Your task to perform on an android device: Clear all items from cart on amazon.com. Image 0: 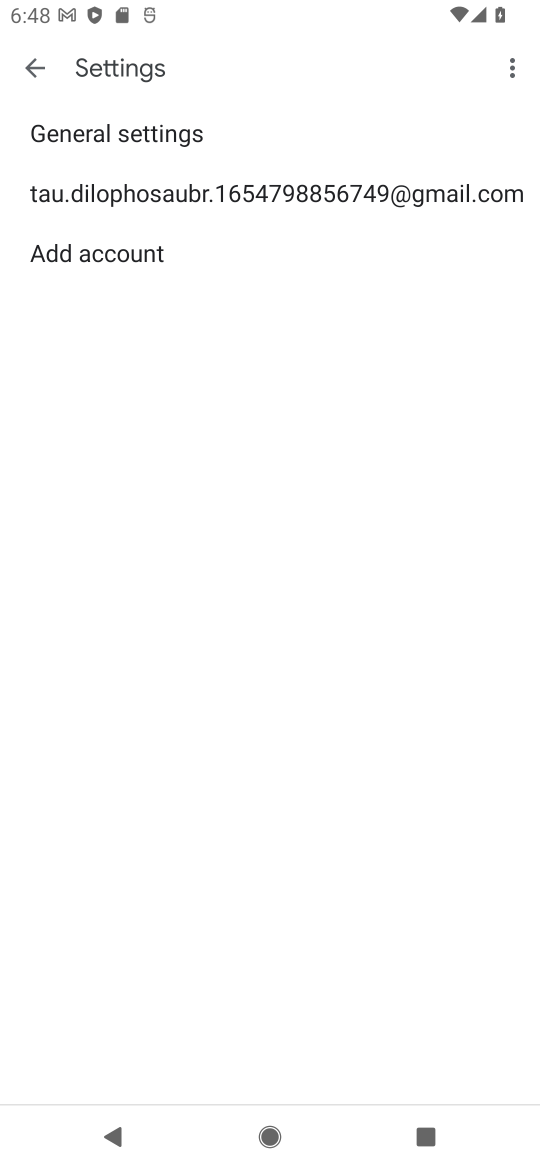
Step 0: press back button
Your task to perform on an android device: Clear all items from cart on amazon.com. Image 1: 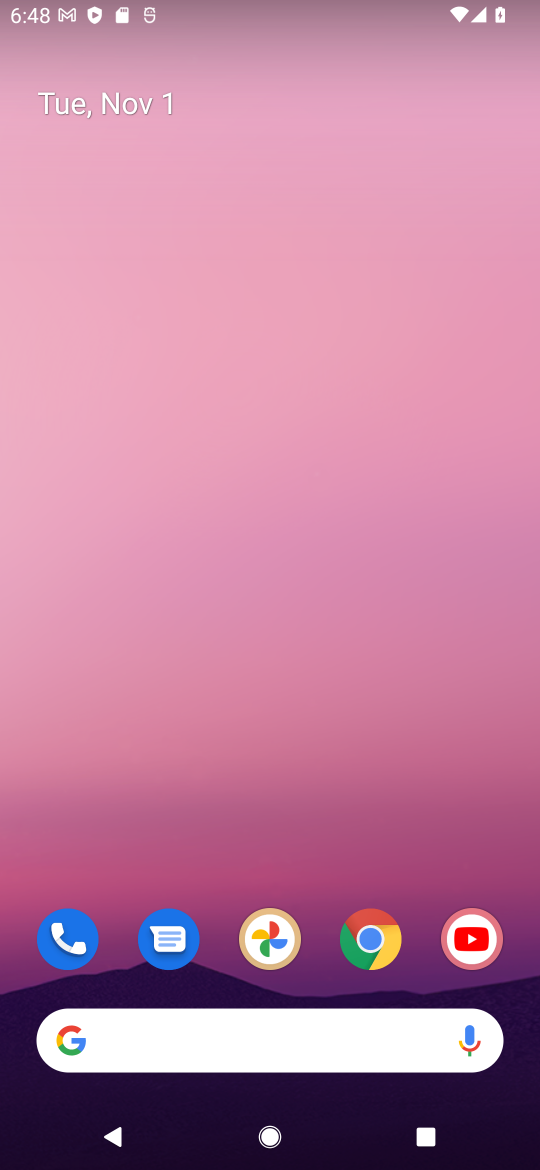
Step 1: drag from (265, 827) to (258, 240)
Your task to perform on an android device: Clear all items from cart on amazon.com. Image 2: 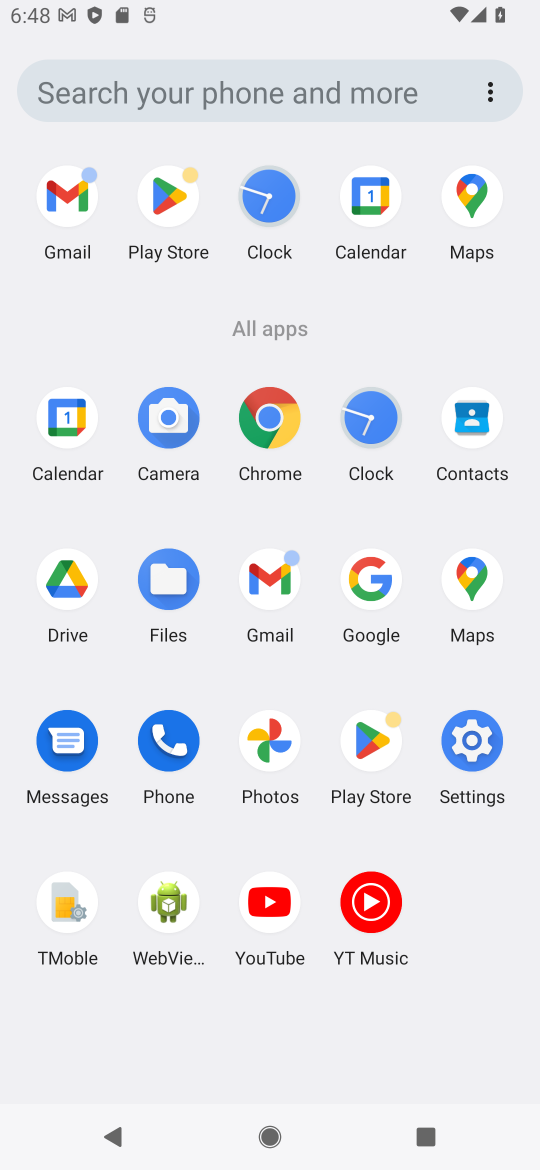
Step 2: click (261, 438)
Your task to perform on an android device: Clear all items from cart on amazon.com. Image 3: 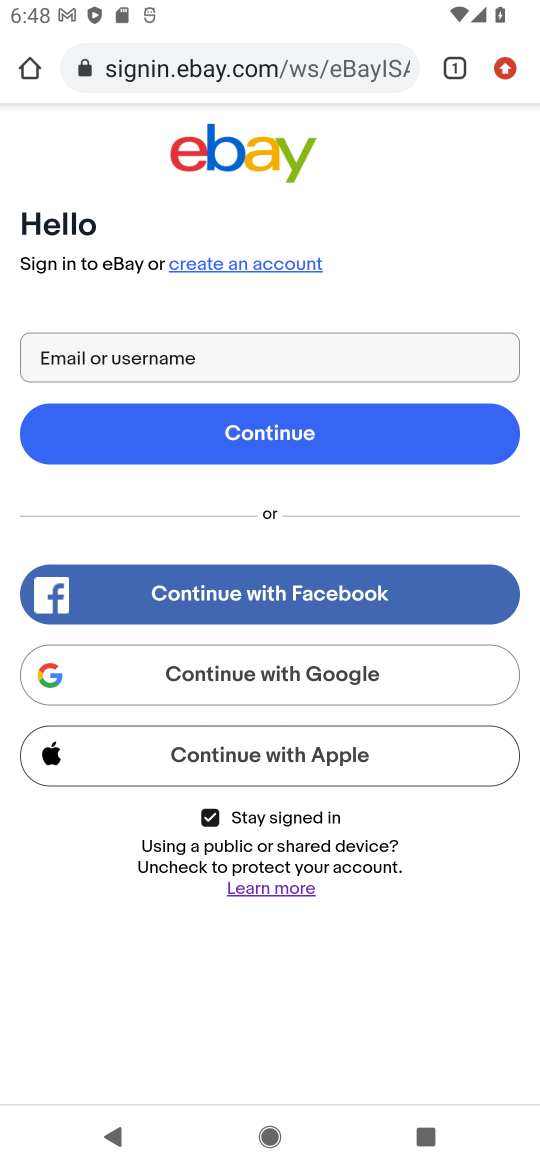
Step 3: click (234, 63)
Your task to perform on an android device: Clear all items from cart on amazon.com. Image 4: 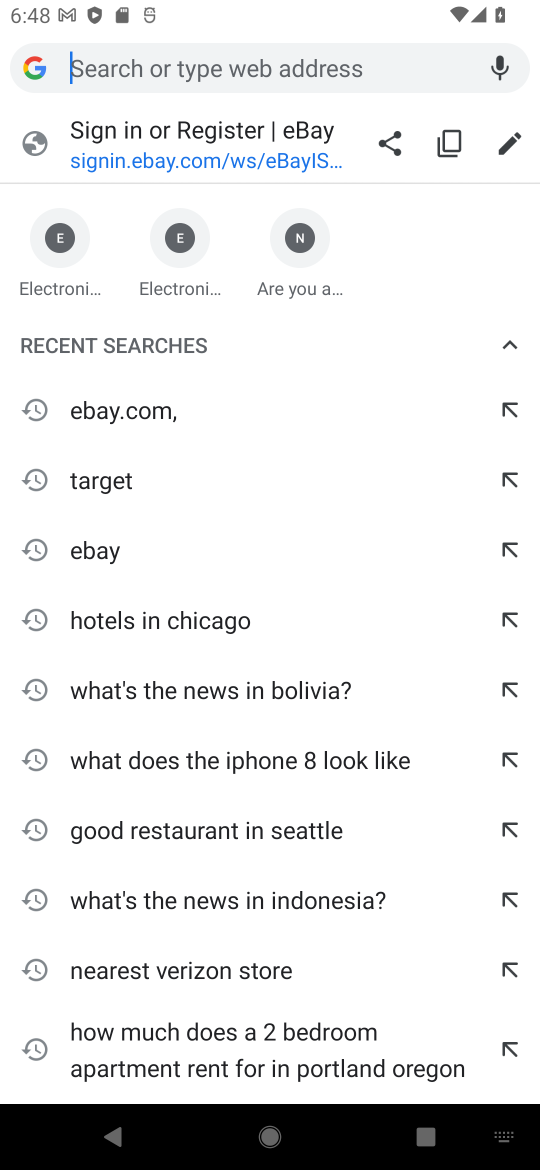
Step 4: type "amazon.com."
Your task to perform on an android device: Clear all items from cart on amazon.com. Image 5: 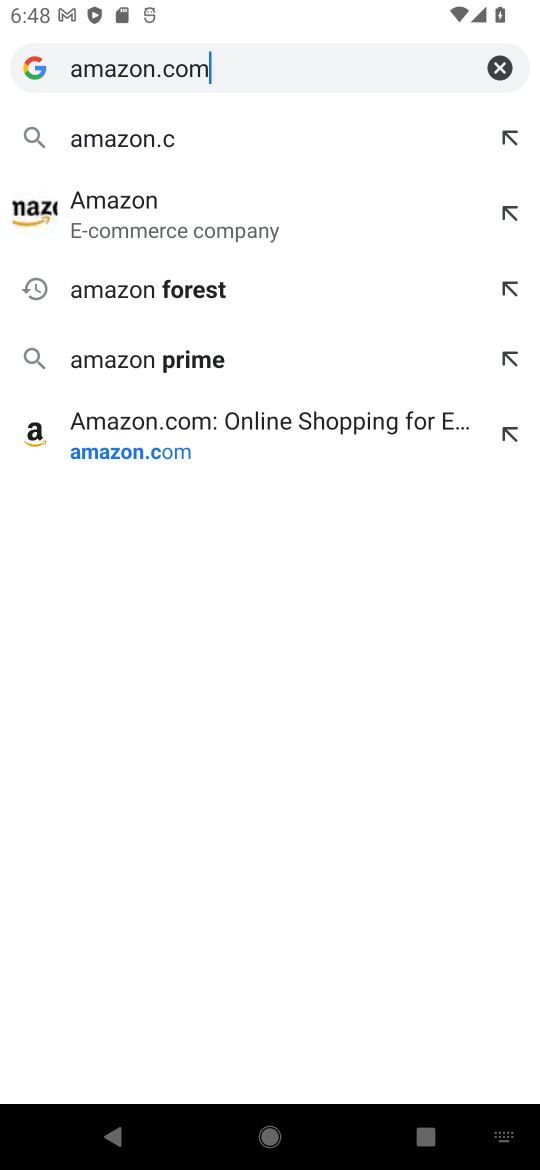
Step 5: press enter
Your task to perform on an android device: Clear all items from cart on amazon.com. Image 6: 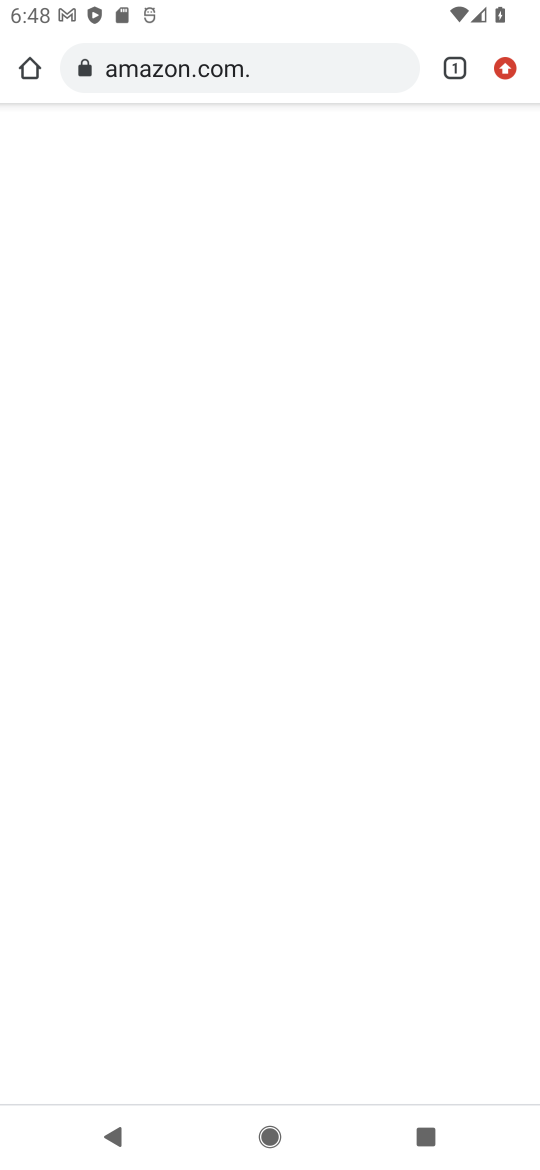
Step 6: press enter
Your task to perform on an android device: Clear all items from cart on amazon.com. Image 7: 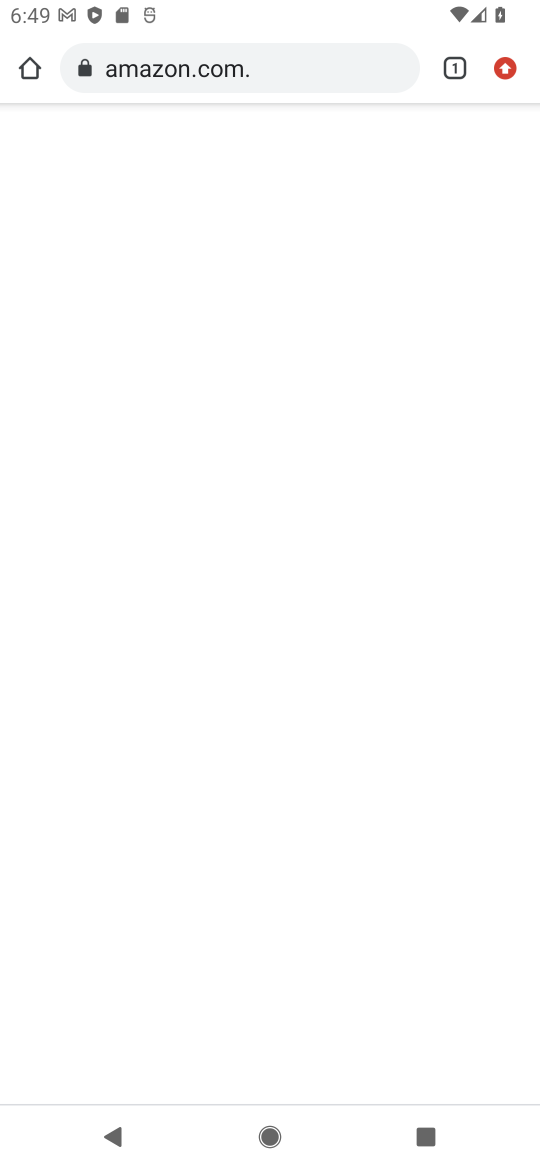
Step 7: press enter
Your task to perform on an android device: Clear all items from cart on amazon.com. Image 8: 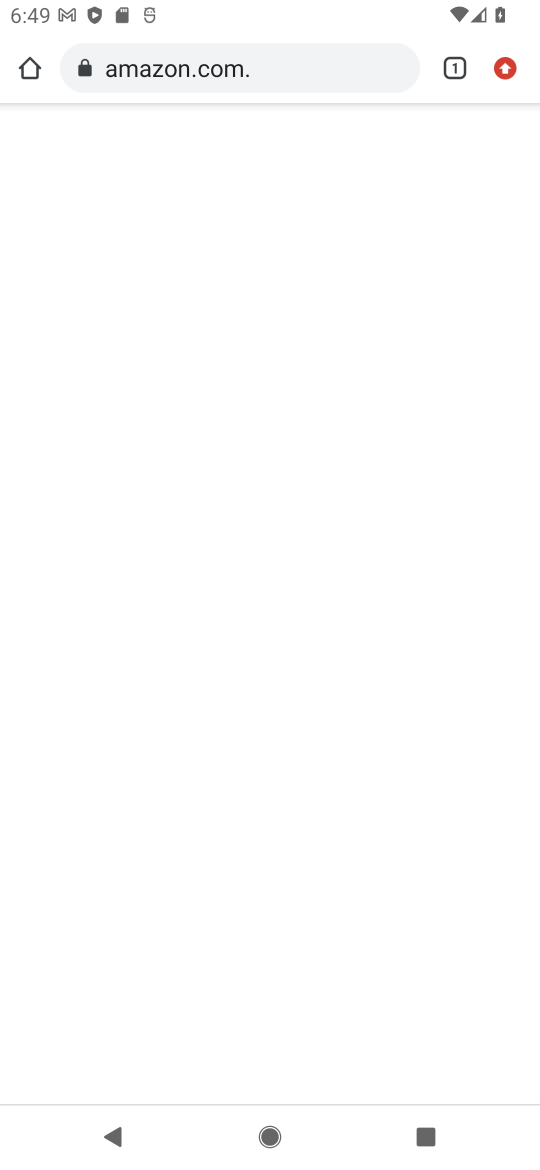
Step 8: click (334, 91)
Your task to perform on an android device: Clear all items from cart on amazon.com. Image 9: 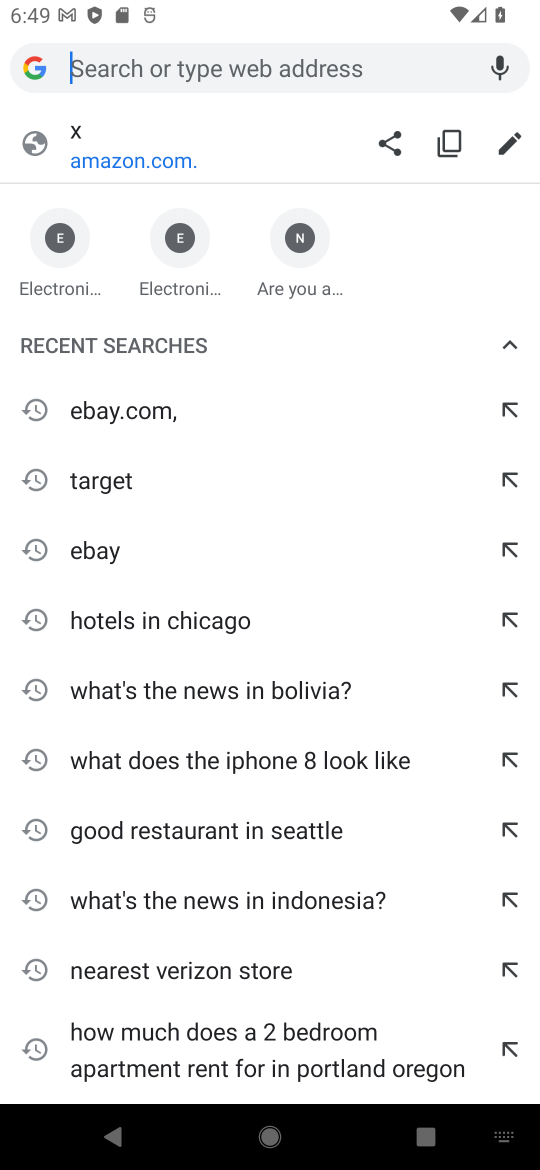
Step 9: type "amazon.com."
Your task to perform on an android device: Clear all items from cart on amazon.com. Image 10: 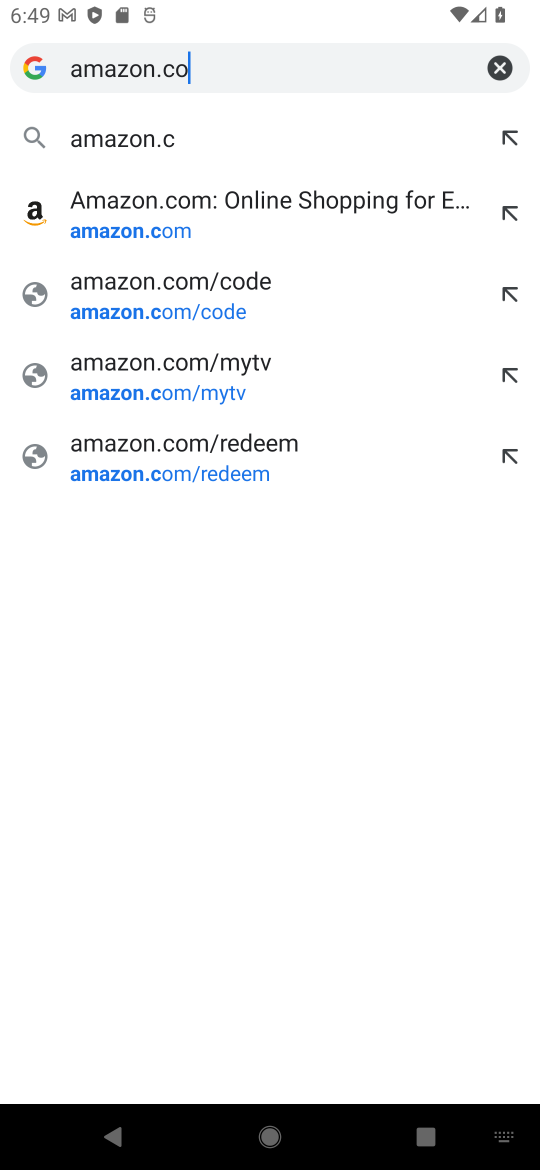
Step 10: press enter
Your task to perform on an android device: Clear all items from cart on amazon.com. Image 11: 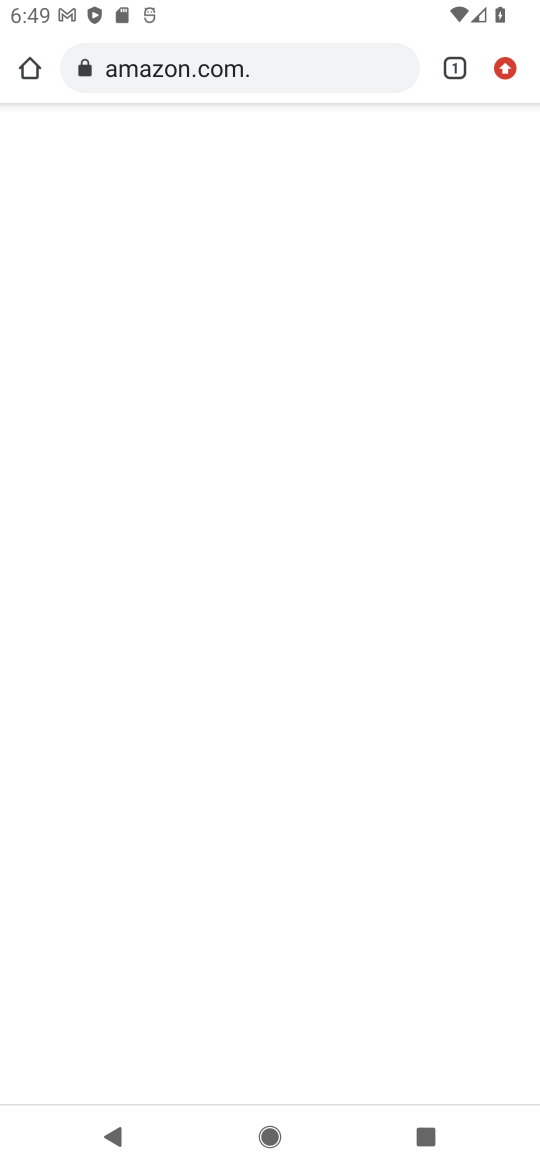
Step 11: press enter
Your task to perform on an android device: Clear all items from cart on amazon.com. Image 12: 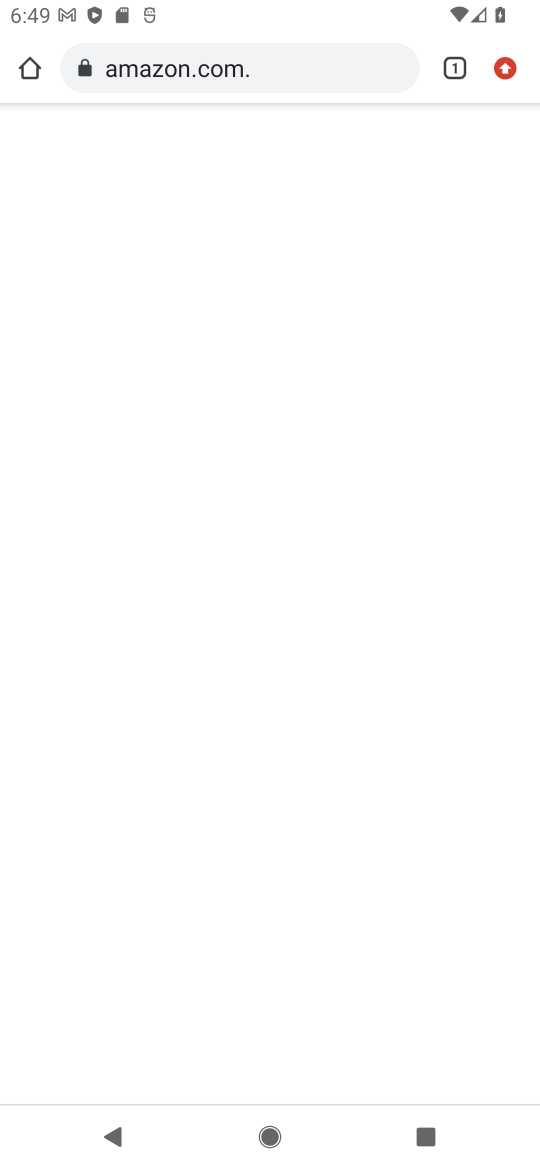
Step 12: press home button
Your task to perform on an android device: Clear all items from cart on amazon.com. Image 13: 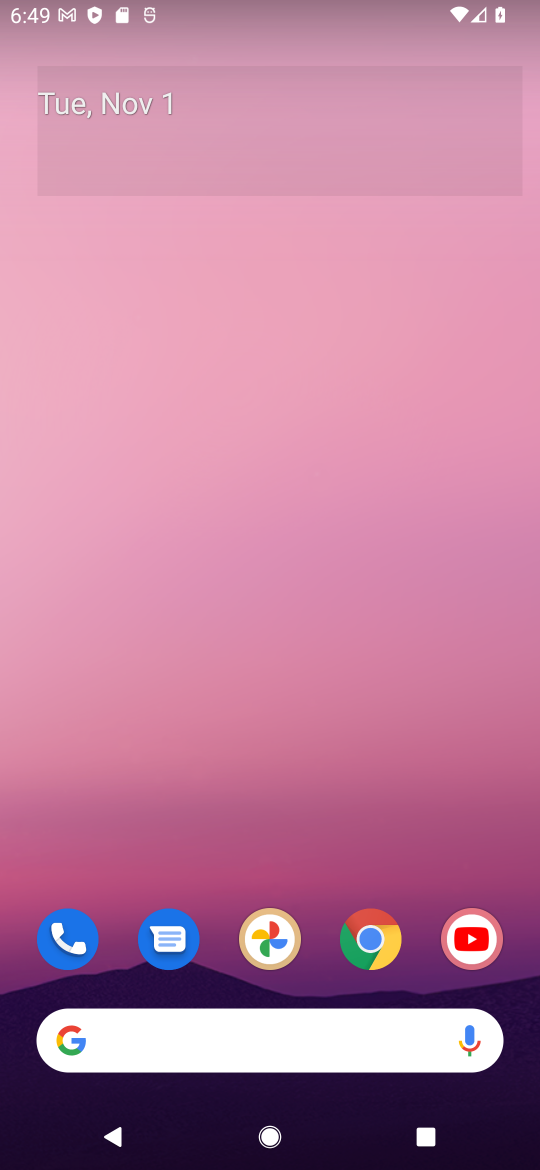
Step 13: drag from (313, 1049) to (264, 217)
Your task to perform on an android device: Clear all items from cart on amazon.com. Image 14: 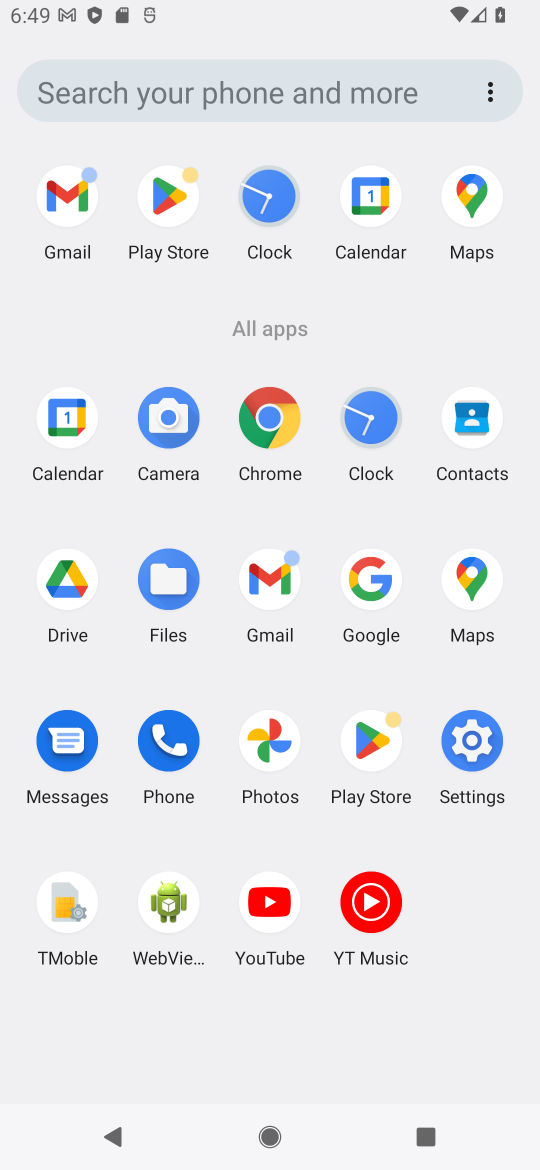
Step 14: click (284, 447)
Your task to perform on an android device: Clear all items from cart on amazon.com. Image 15: 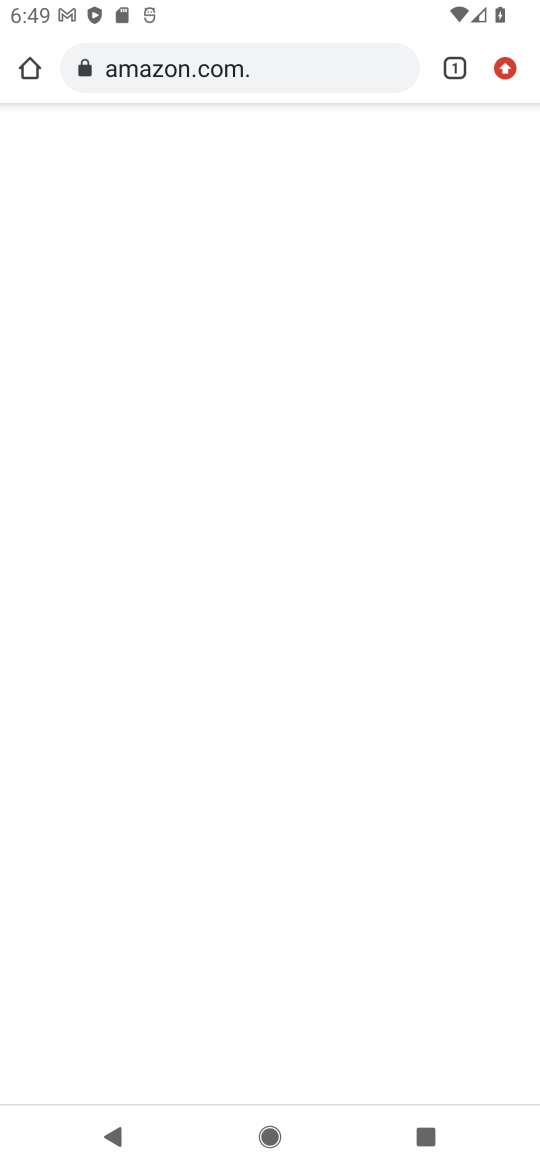
Step 15: click (300, 59)
Your task to perform on an android device: Clear all items from cart on amazon.com. Image 16: 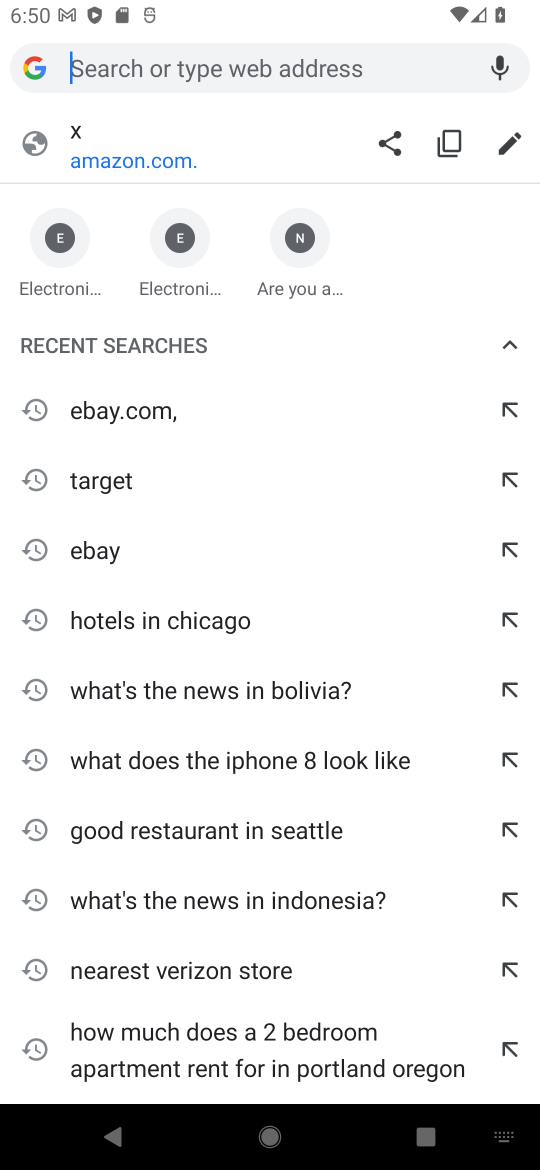
Step 16: click (145, 168)
Your task to perform on an android device: Clear all items from cart on amazon.com. Image 17: 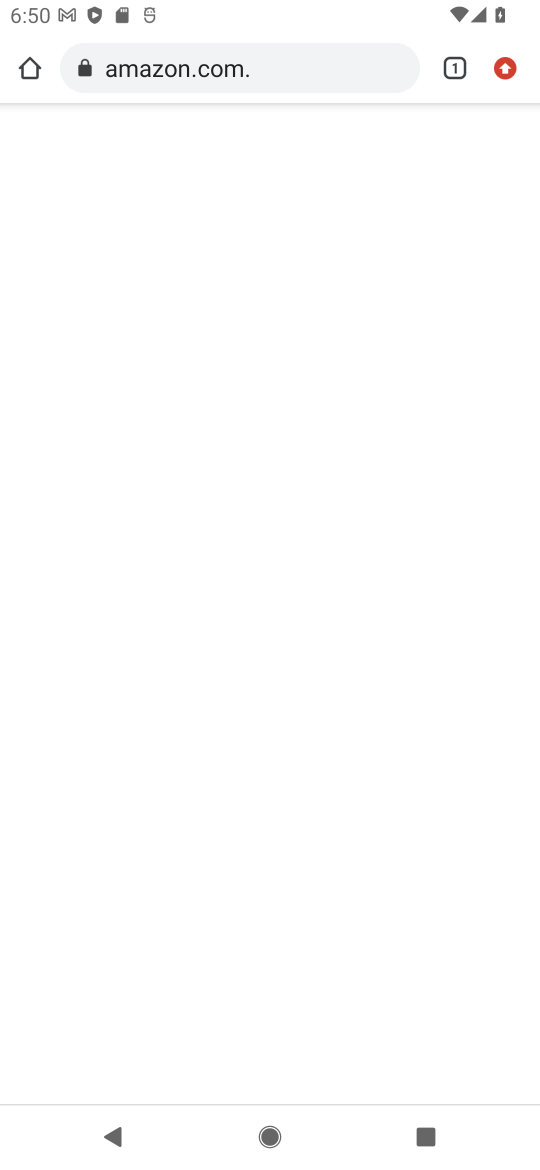
Step 17: task complete